Your task to perform on an android device: turn on javascript in the chrome app Image 0: 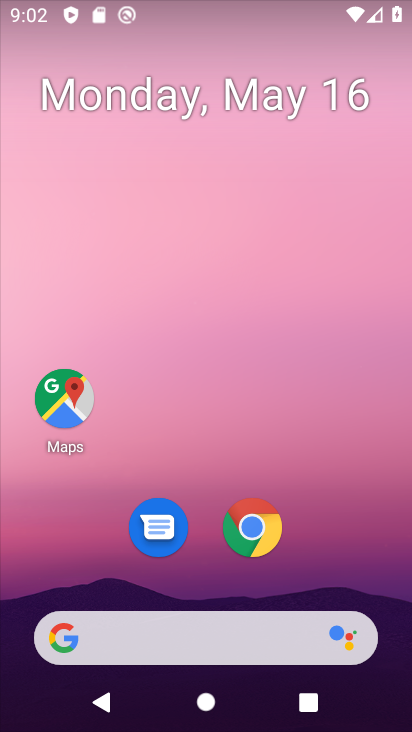
Step 0: click (250, 526)
Your task to perform on an android device: turn on javascript in the chrome app Image 1: 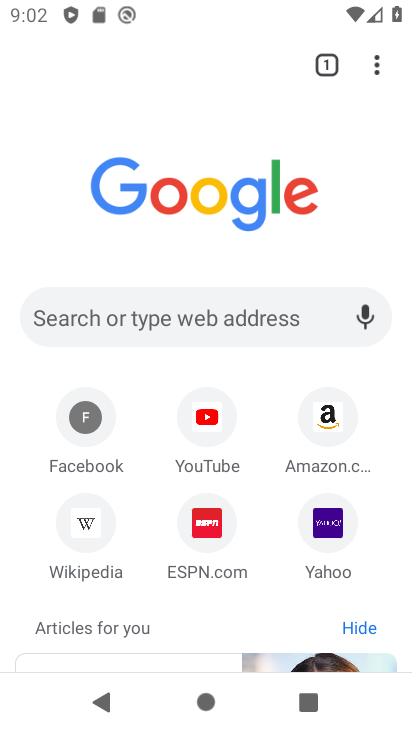
Step 1: click (382, 72)
Your task to perform on an android device: turn on javascript in the chrome app Image 2: 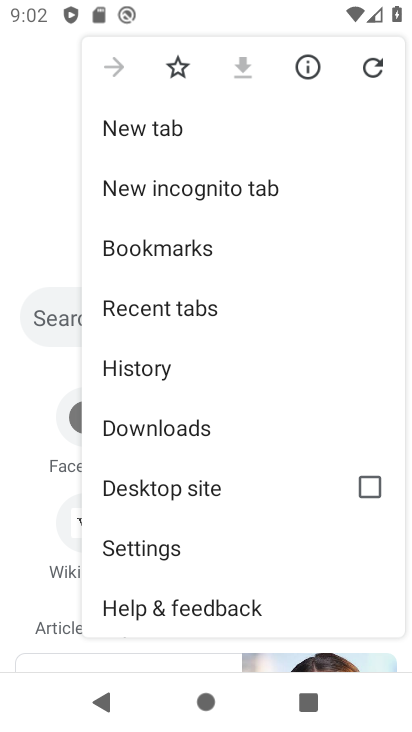
Step 2: click (130, 554)
Your task to perform on an android device: turn on javascript in the chrome app Image 3: 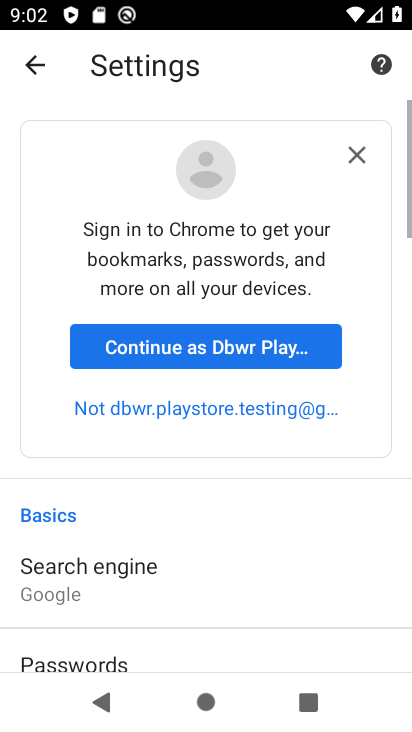
Step 3: drag from (192, 560) to (207, 40)
Your task to perform on an android device: turn on javascript in the chrome app Image 4: 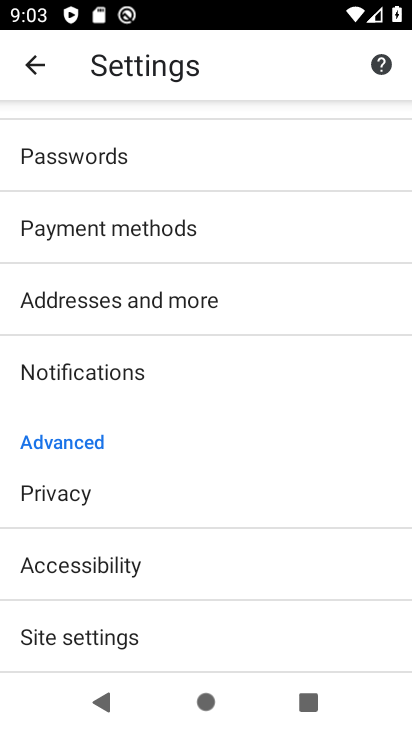
Step 4: click (105, 646)
Your task to perform on an android device: turn on javascript in the chrome app Image 5: 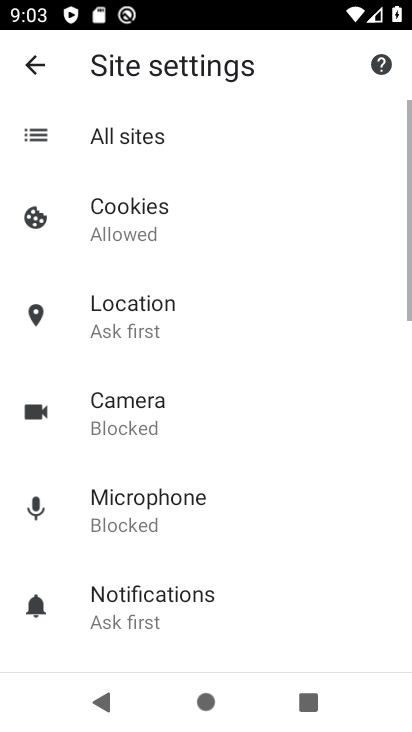
Step 5: drag from (239, 583) to (251, 275)
Your task to perform on an android device: turn on javascript in the chrome app Image 6: 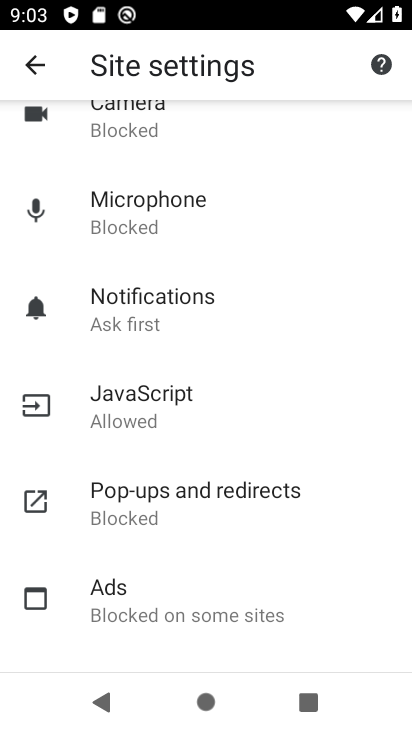
Step 6: click (153, 418)
Your task to perform on an android device: turn on javascript in the chrome app Image 7: 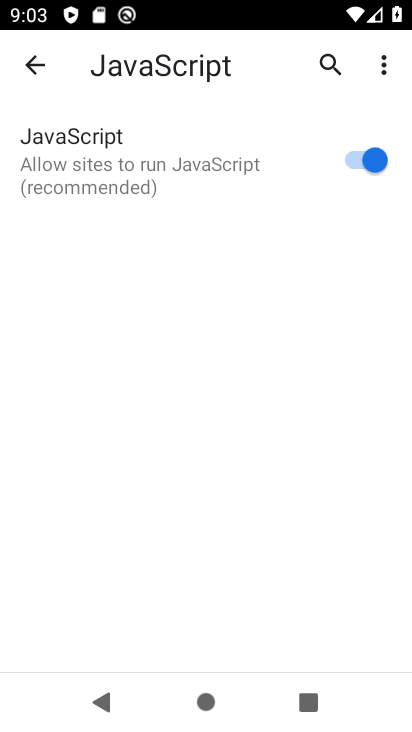
Step 7: task complete